Your task to perform on an android device: Open Chrome and go to settings Image 0: 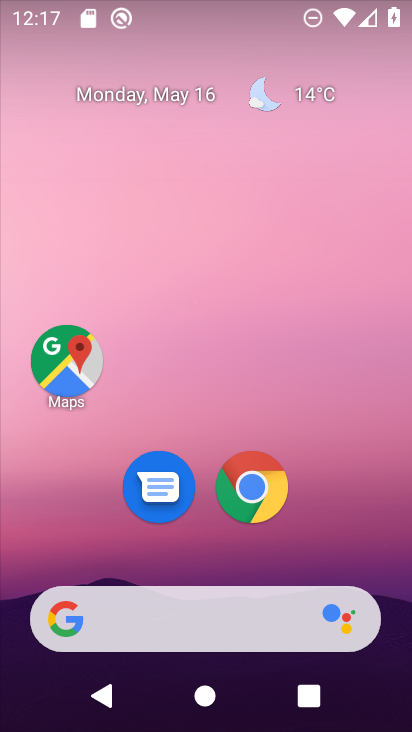
Step 0: press home button
Your task to perform on an android device: Open Chrome and go to settings Image 1: 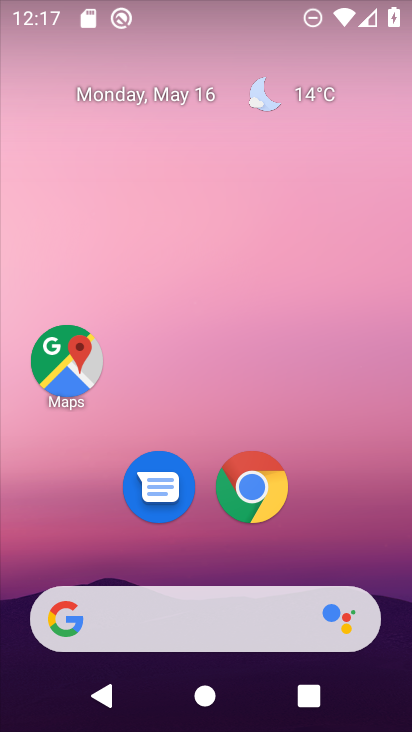
Step 1: click (252, 510)
Your task to perform on an android device: Open Chrome and go to settings Image 2: 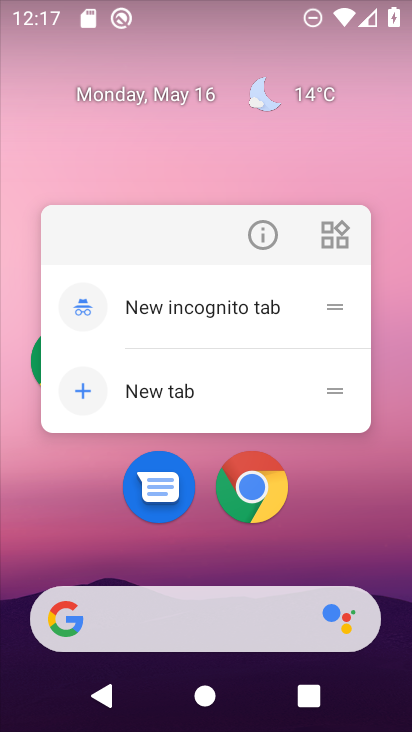
Step 2: click (259, 498)
Your task to perform on an android device: Open Chrome and go to settings Image 3: 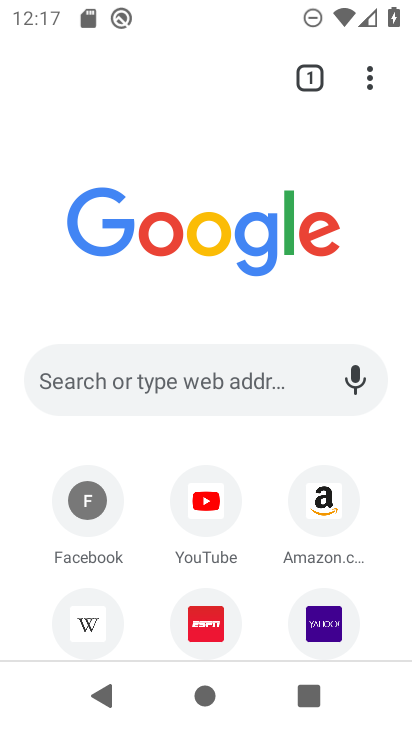
Step 3: task complete